Your task to perform on an android device: turn off translation in the chrome app Image 0: 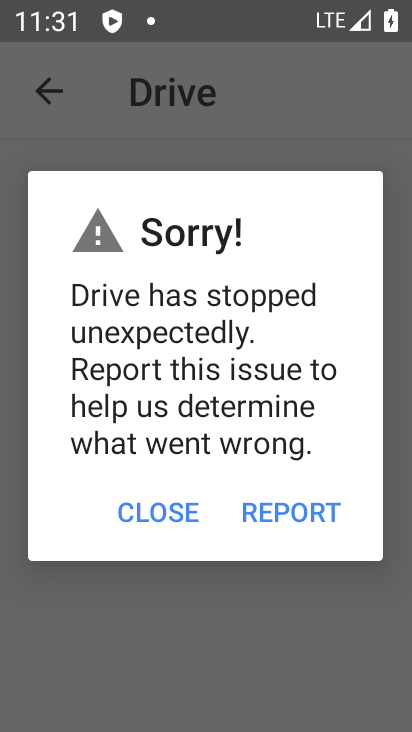
Step 0: press home button
Your task to perform on an android device: turn off translation in the chrome app Image 1: 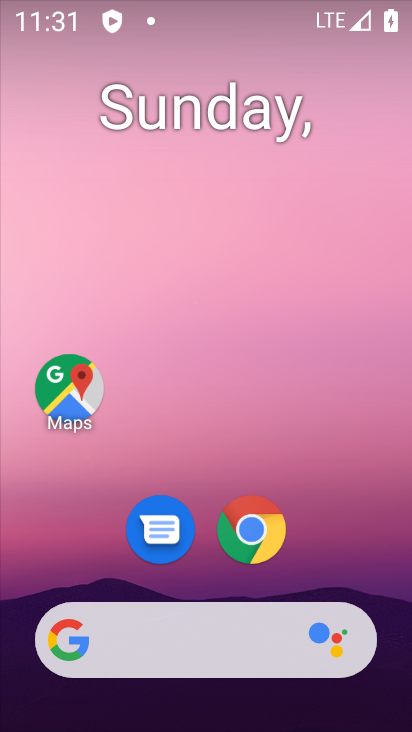
Step 1: click (256, 529)
Your task to perform on an android device: turn off translation in the chrome app Image 2: 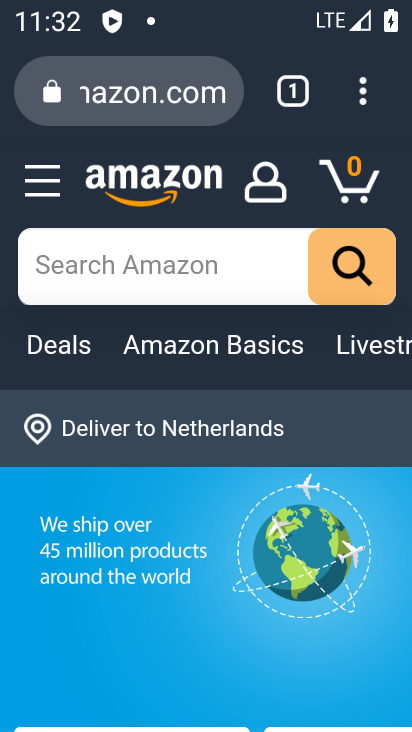
Step 2: click (363, 95)
Your task to perform on an android device: turn off translation in the chrome app Image 3: 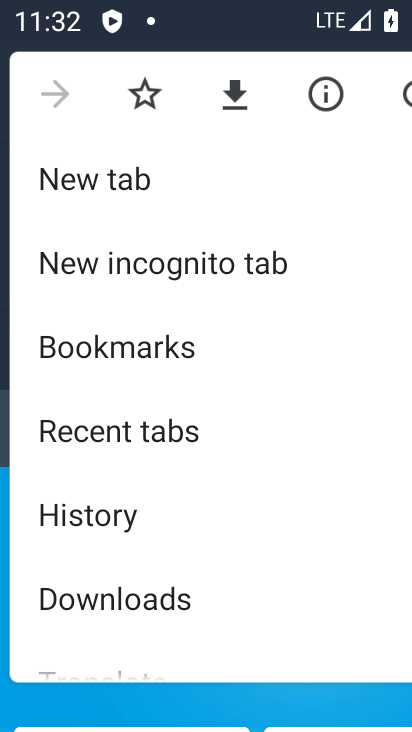
Step 3: drag from (195, 537) to (264, 433)
Your task to perform on an android device: turn off translation in the chrome app Image 4: 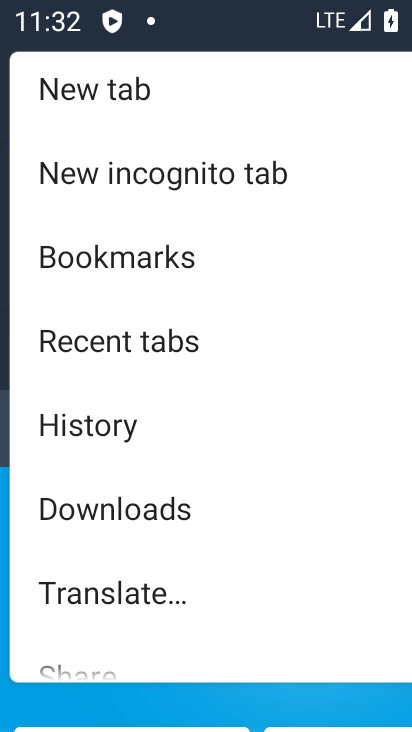
Step 4: drag from (173, 556) to (245, 443)
Your task to perform on an android device: turn off translation in the chrome app Image 5: 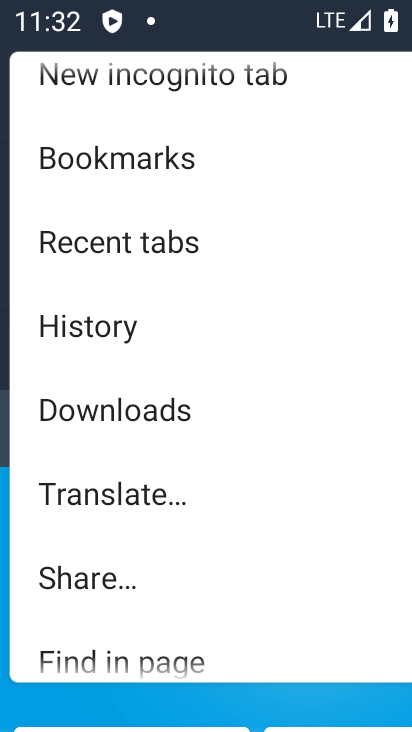
Step 5: drag from (150, 533) to (249, 400)
Your task to perform on an android device: turn off translation in the chrome app Image 6: 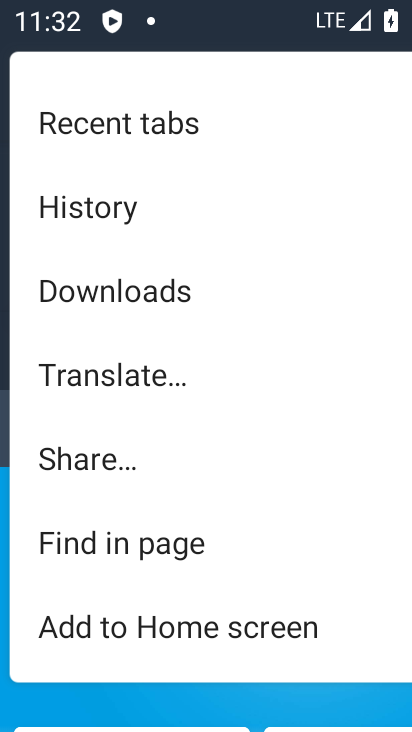
Step 6: drag from (175, 459) to (214, 405)
Your task to perform on an android device: turn off translation in the chrome app Image 7: 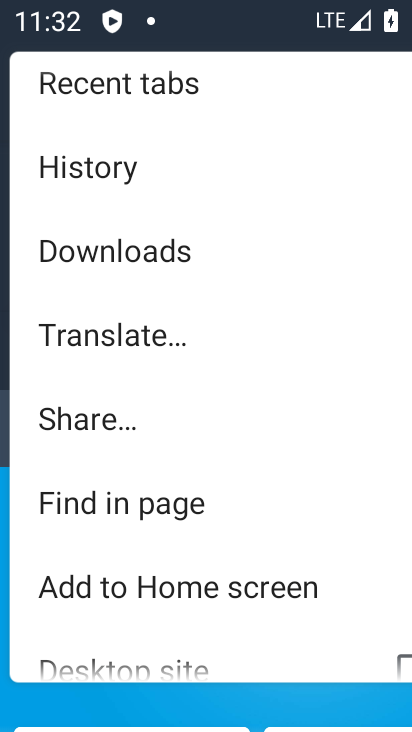
Step 7: drag from (114, 605) to (241, 446)
Your task to perform on an android device: turn off translation in the chrome app Image 8: 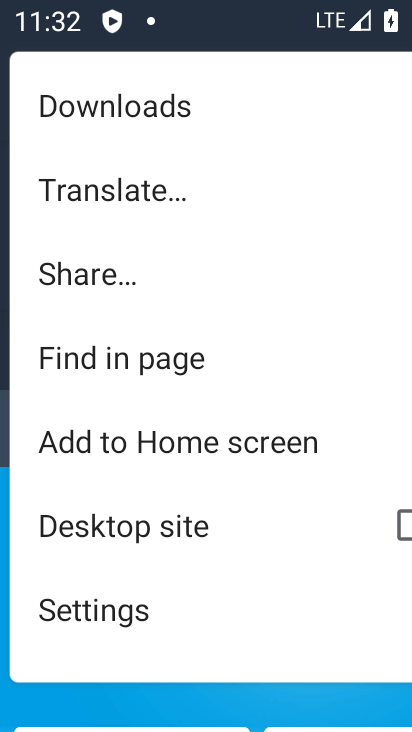
Step 8: drag from (162, 585) to (257, 440)
Your task to perform on an android device: turn off translation in the chrome app Image 9: 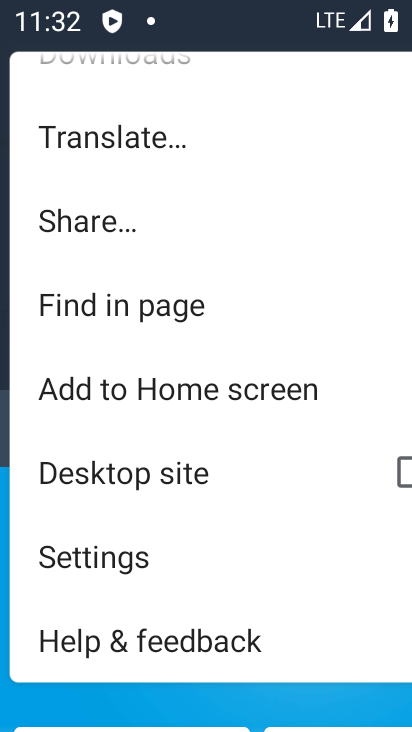
Step 9: click (108, 571)
Your task to perform on an android device: turn off translation in the chrome app Image 10: 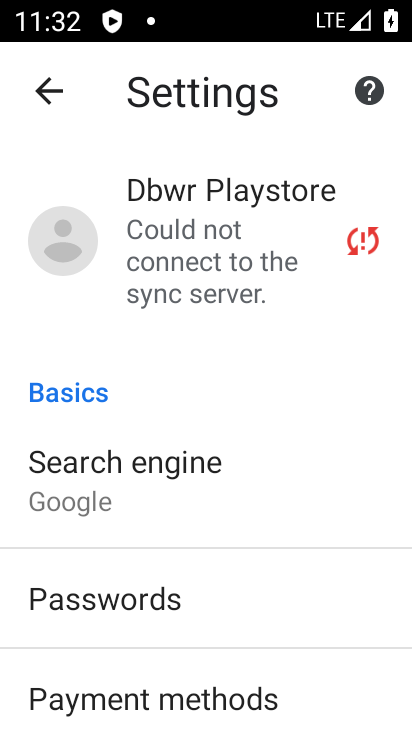
Step 10: drag from (134, 558) to (227, 442)
Your task to perform on an android device: turn off translation in the chrome app Image 11: 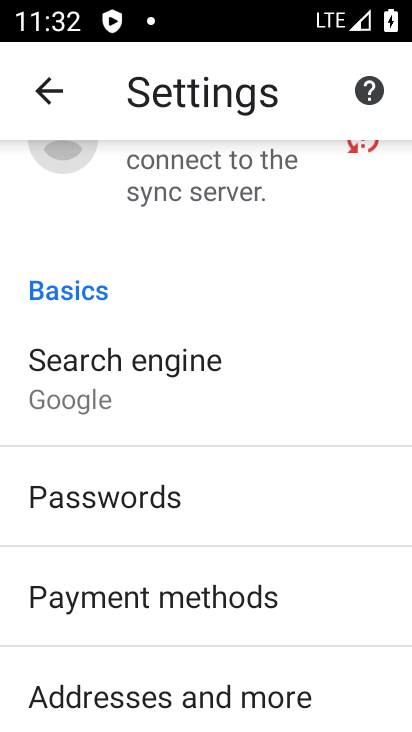
Step 11: drag from (141, 563) to (231, 443)
Your task to perform on an android device: turn off translation in the chrome app Image 12: 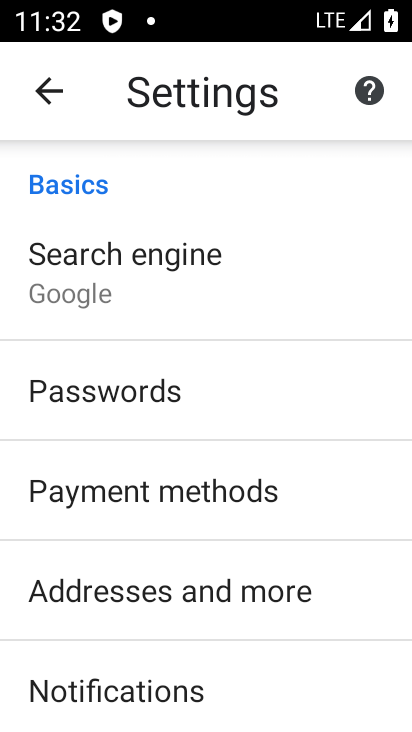
Step 12: drag from (158, 570) to (276, 433)
Your task to perform on an android device: turn off translation in the chrome app Image 13: 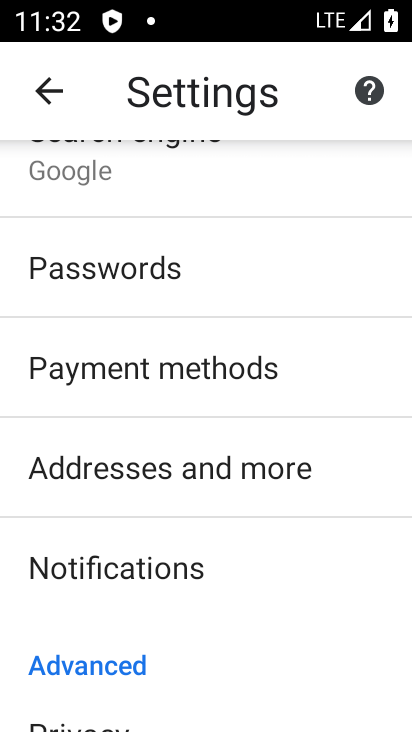
Step 13: drag from (162, 545) to (290, 376)
Your task to perform on an android device: turn off translation in the chrome app Image 14: 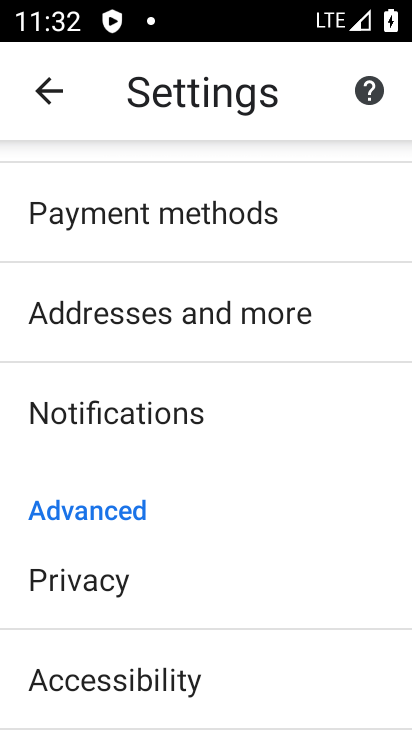
Step 14: drag from (150, 602) to (268, 449)
Your task to perform on an android device: turn off translation in the chrome app Image 15: 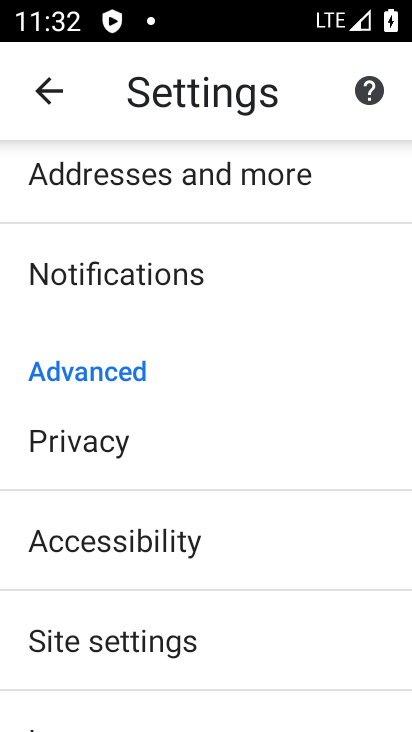
Step 15: drag from (148, 578) to (231, 482)
Your task to perform on an android device: turn off translation in the chrome app Image 16: 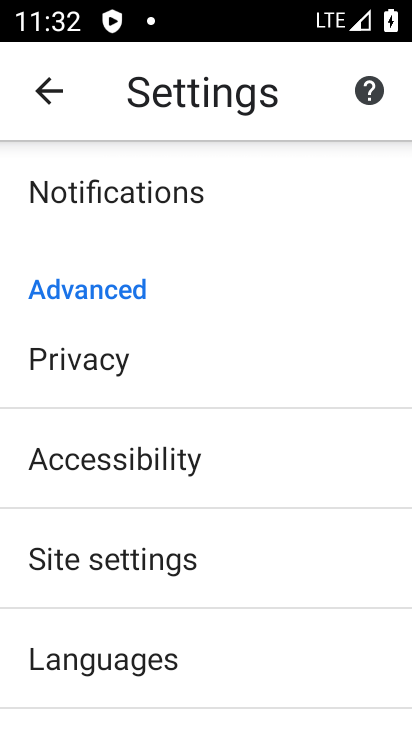
Step 16: drag from (83, 619) to (196, 494)
Your task to perform on an android device: turn off translation in the chrome app Image 17: 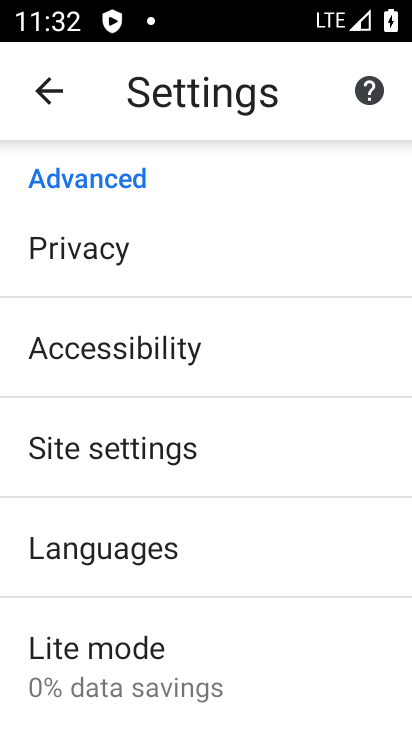
Step 17: click (142, 557)
Your task to perform on an android device: turn off translation in the chrome app Image 18: 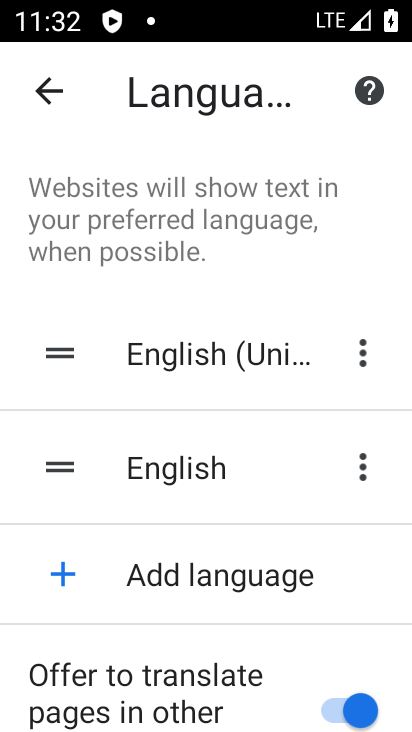
Step 18: drag from (130, 646) to (228, 482)
Your task to perform on an android device: turn off translation in the chrome app Image 19: 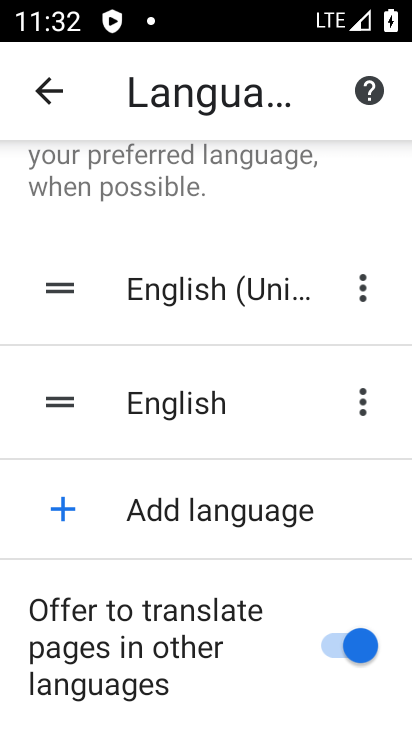
Step 19: click (334, 649)
Your task to perform on an android device: turn off translation in the chrome app Image 20: 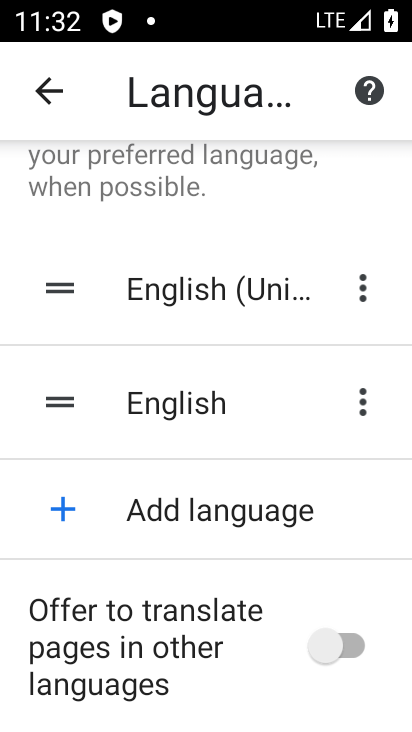
Step 20: task complete